Your task to perform on an android device: Open Chrome and go to the settings page Image 0: 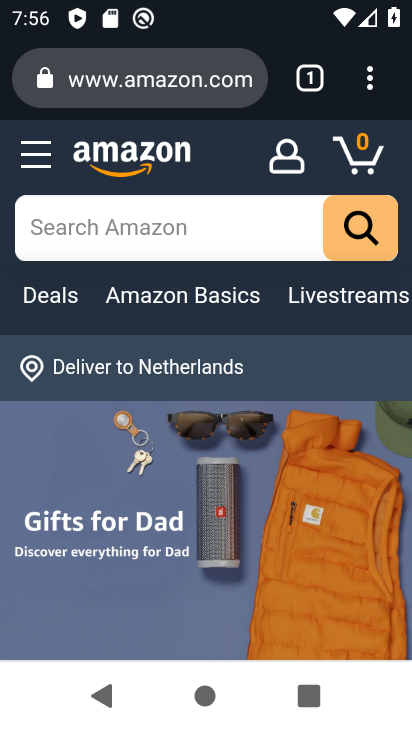
Step 0: press home button
Your task to perform on an android device: Open Chrome and go to the settings page Image 1: 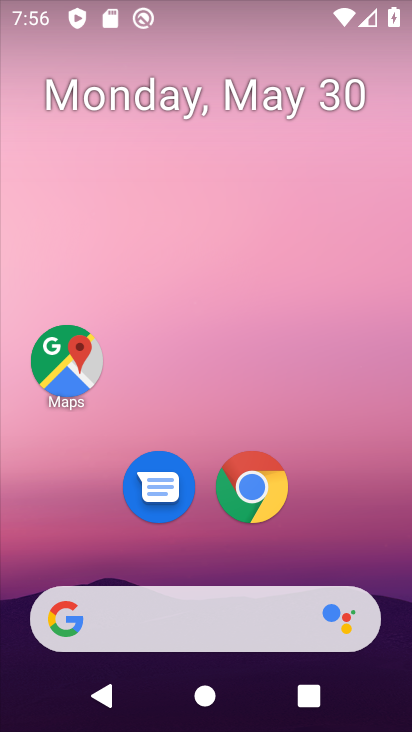
Step 1: click (276, 475)
Your task to perform on an android device: Open Chrome and go to the settings page Image 2: 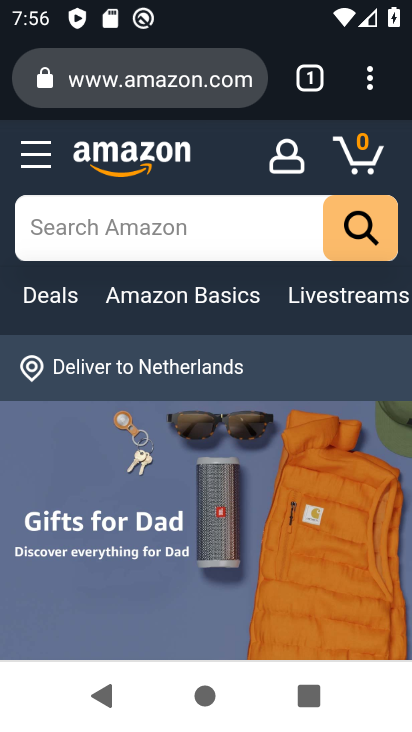
Step 2: click (365, 74)
Your task to perform on an android device: Open Chrome and go to the settings page Image 3: 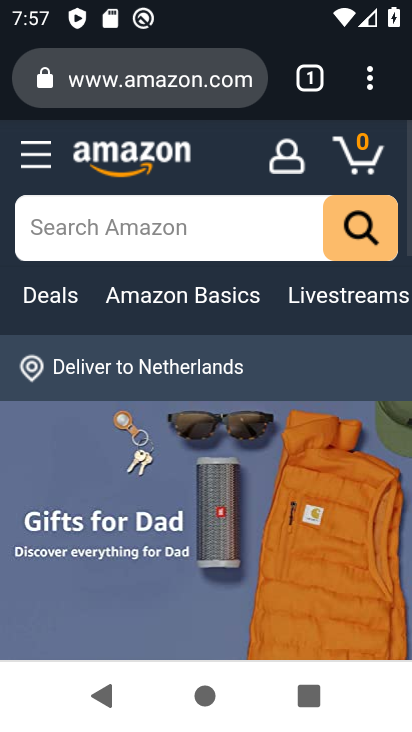
Step 3: click (362, 81)
Your task to perform on an android device: Open Chrome and go to the settings page Image 4: 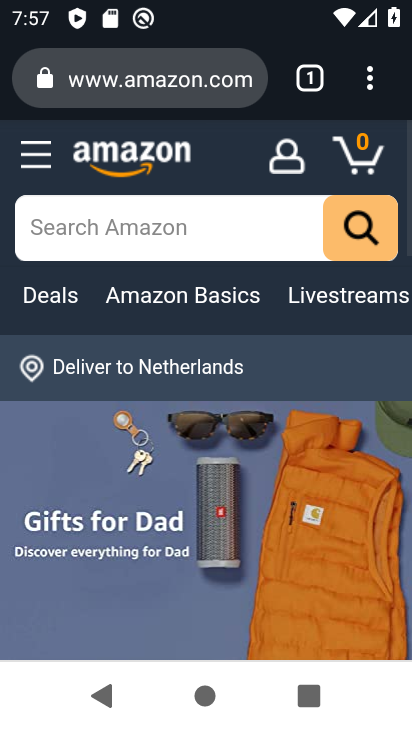
Step 4: click (379, 72)
Your task to perform on an android device: Open Chrome and go to the settings page Image 5: 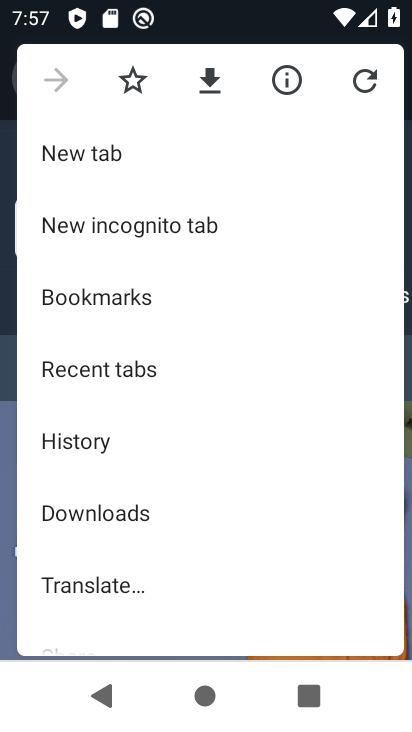
Step 5: drag from (250, 550) to (235, 262)
Your task to perform on an android device: Open Chrome and go to the settings page Image 6: 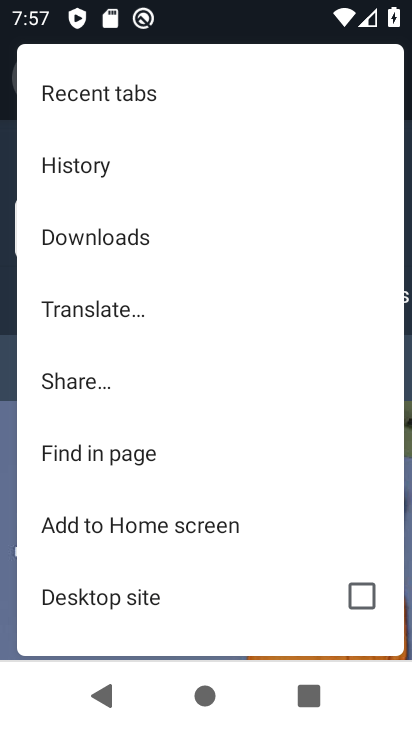
Step 6: drag from (135, 545) to (174, 286)
Your task to perform on an android device: Open Chrome and go to the settings page Image 7: 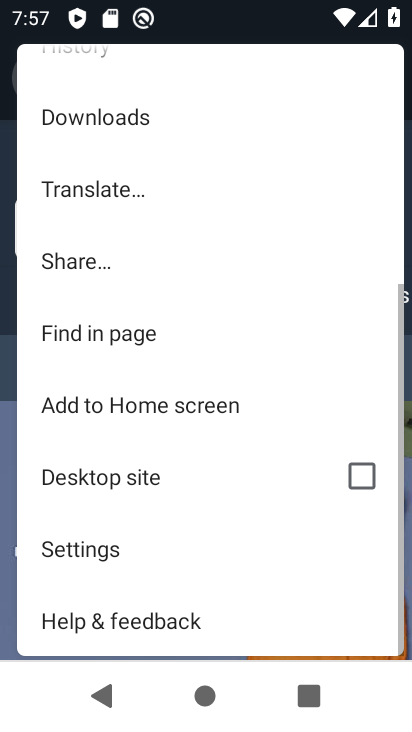
Step 7: click (118, 566)
Your task to perform on an android device: Open Chrome and go to the settings page Image 8: 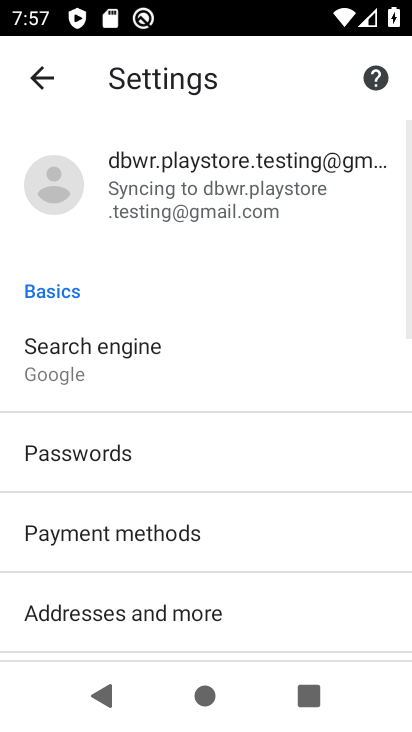
Step 8: task complete